Your task to perform on an android device: make emails show in primary in the gmail app Image 0: 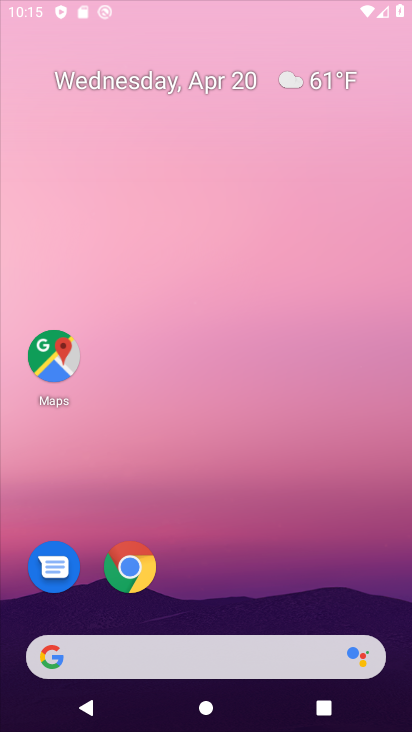
Step 0: click (124, 572)
Your task to perform on an android device: make emails show in primary in the gmail app Image 1: 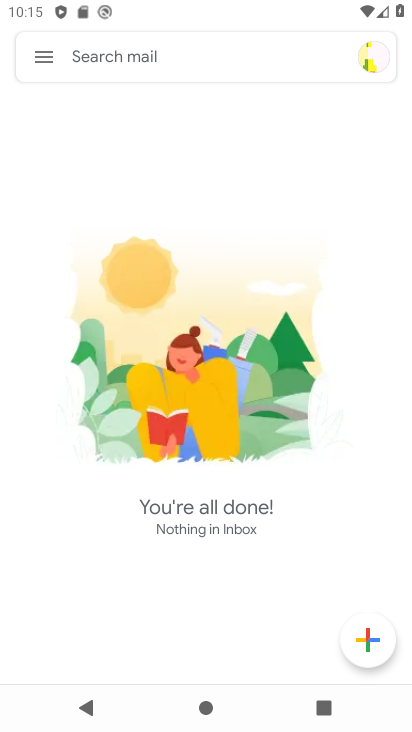
Step 1: click (43, 52)
Your task to perform on an android device: make emails show in primary in the gmail app Image 2: 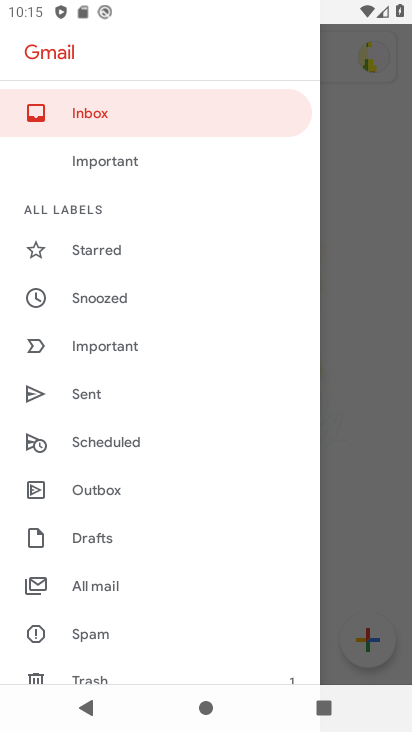
Step 2: drag from (123, 576) to (234, 108)
Your task to perform on an android device: make emails show in primary in the gmail app Image 3: 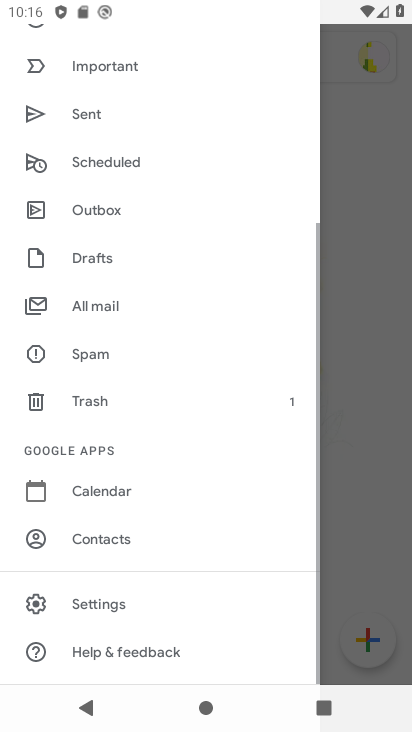
Step 3: click (80, 607)
Your task to perform on an android device: make emails show in primary in the gmail app Image 4: 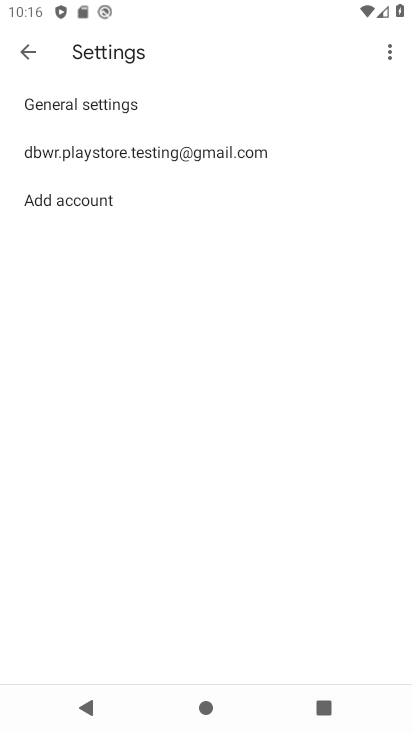
Step 4: click (169, 166)
Your task to perform on an android device: make emails show in primary in the gmail app Image 5: 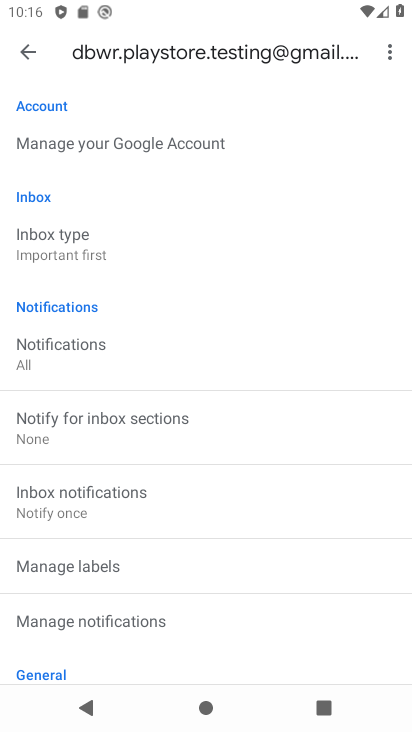
Step 5: task complete